Your task to perform on an android device: turn on javascript in the chrome app Image 0: 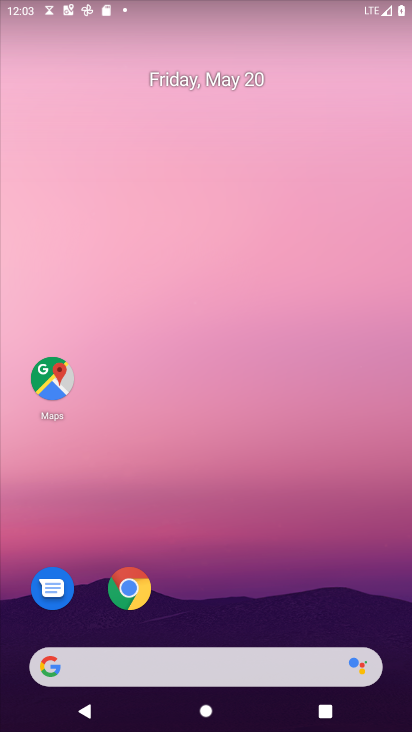
Step 0: click (114, 589)
Your task to perform on an android device: turn on javascript in the chrome app Image 1: 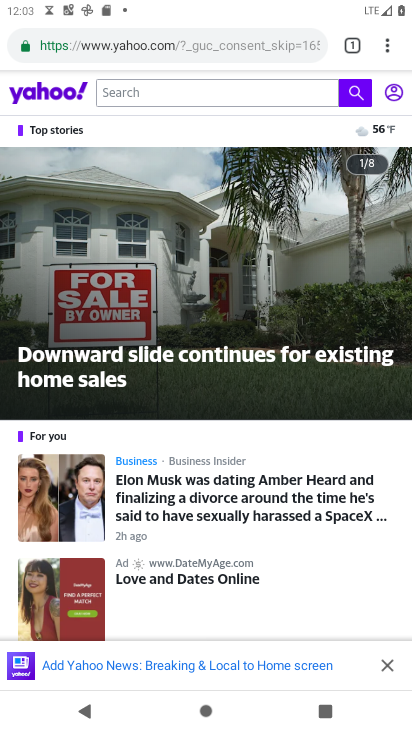
Step 1: click (384, 53)
Your task to perform on an android device: turn on javascript in the chrome app Image 2: 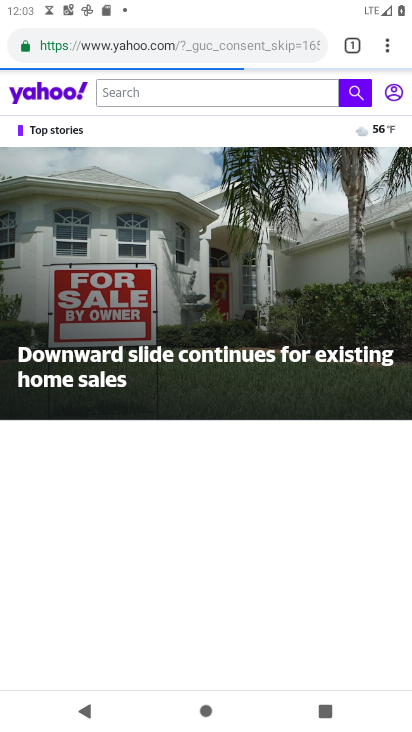
Step 2: click (393, 41)
Your task to perform on an android device: turn on javascript in the chrome app Image 3: 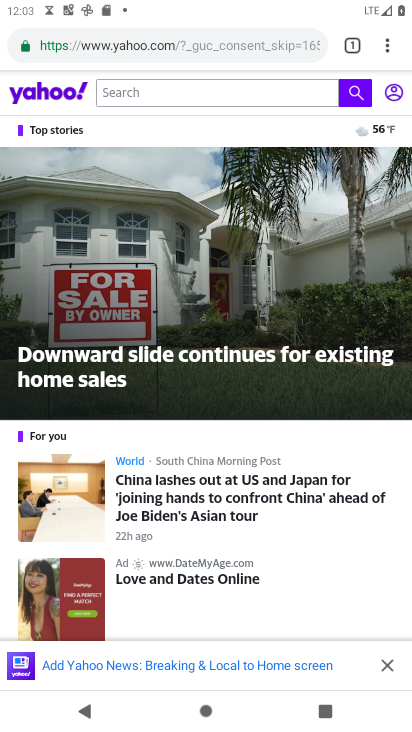
Step 3: click (393, 41)
Your task to perform on an android device: turn on javascript in the chrome app Image 4: 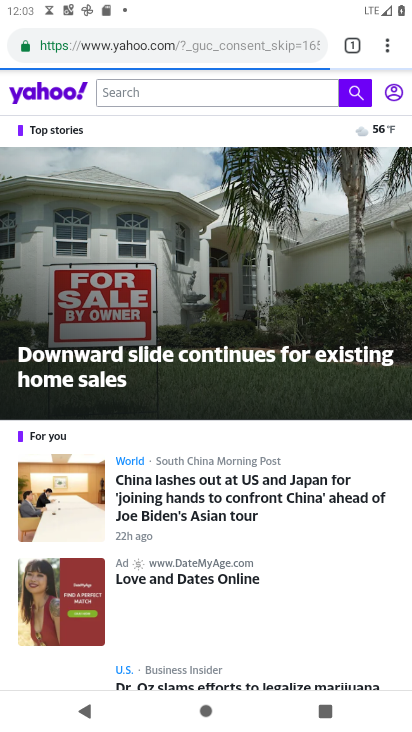
Step 4: click (386, 43)
Your task to perform on an android device: turn on javascript in the chrome app Image 5: 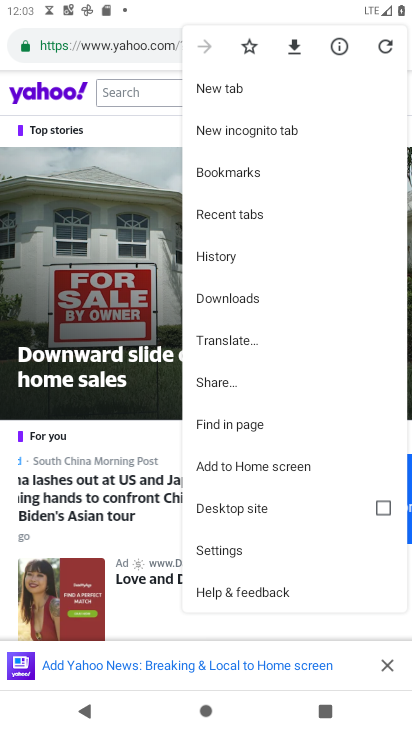
Step 5: click (253, 555)
Your task to perform on an android device: turn on javascript in the chrome app Image 6: 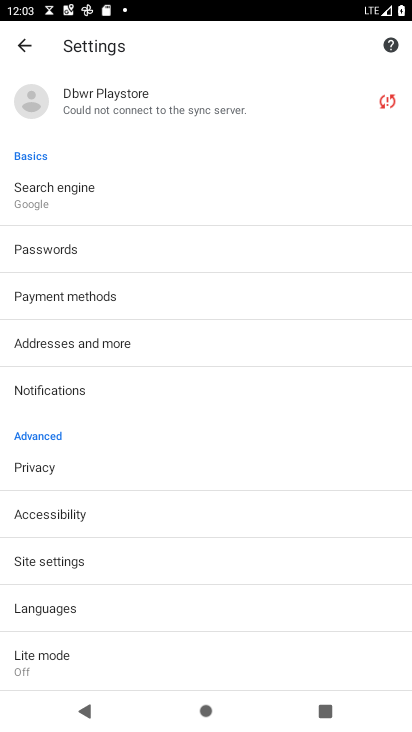
Step 6: click (89, 563)
Your task to perform on an android device: turn on javascript in the chrome app Image 7: 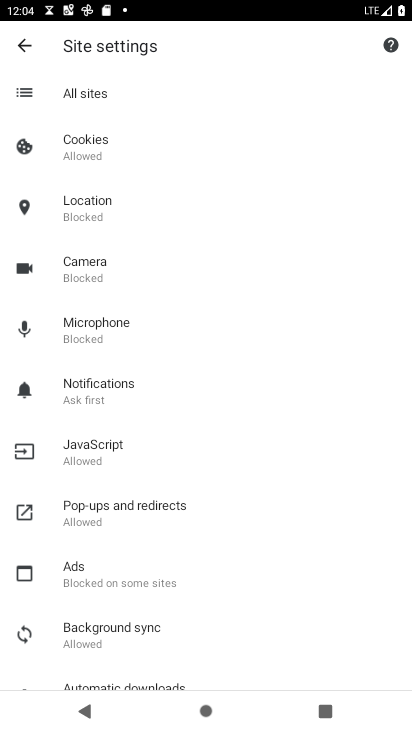
Step 7: click (148, 448)
Your task to perform on an android device: turn on javascript in the chrome app Image 8: 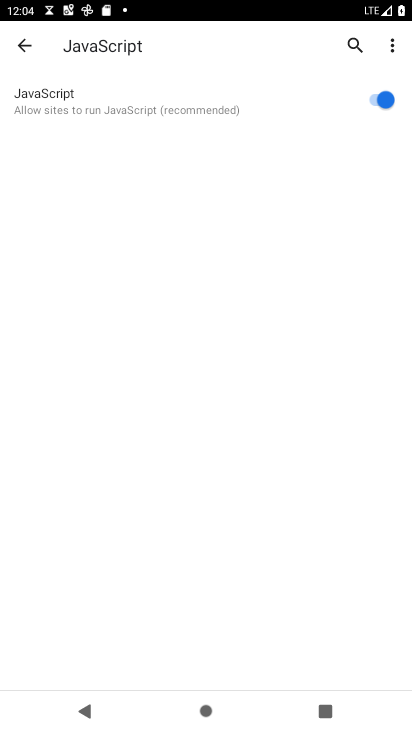
Step 8: task complete